Your task to perform on an android device: Go to Wikipedia Image 0: 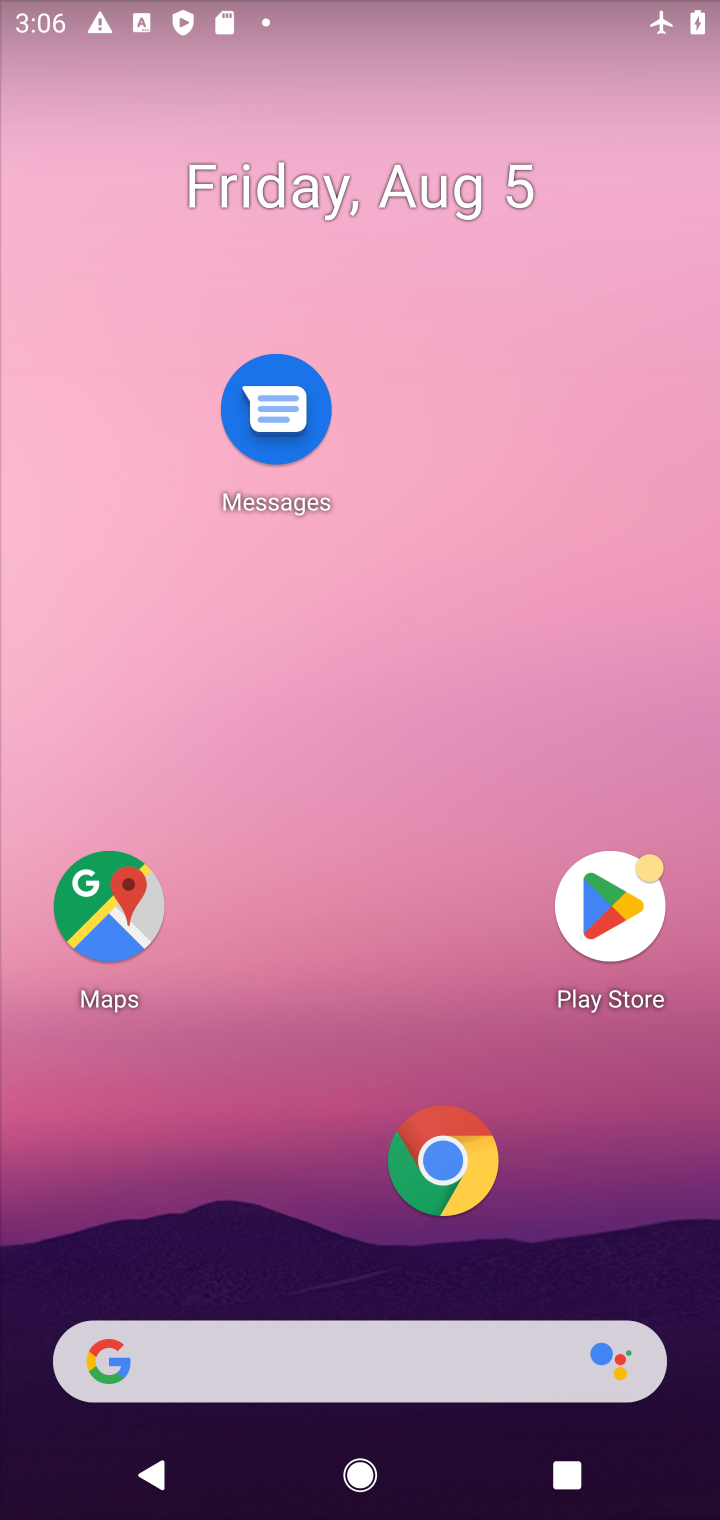
Step 0: click (453, 1169)
Your task to perform on an android device: Go to Wikipedia Image 1: 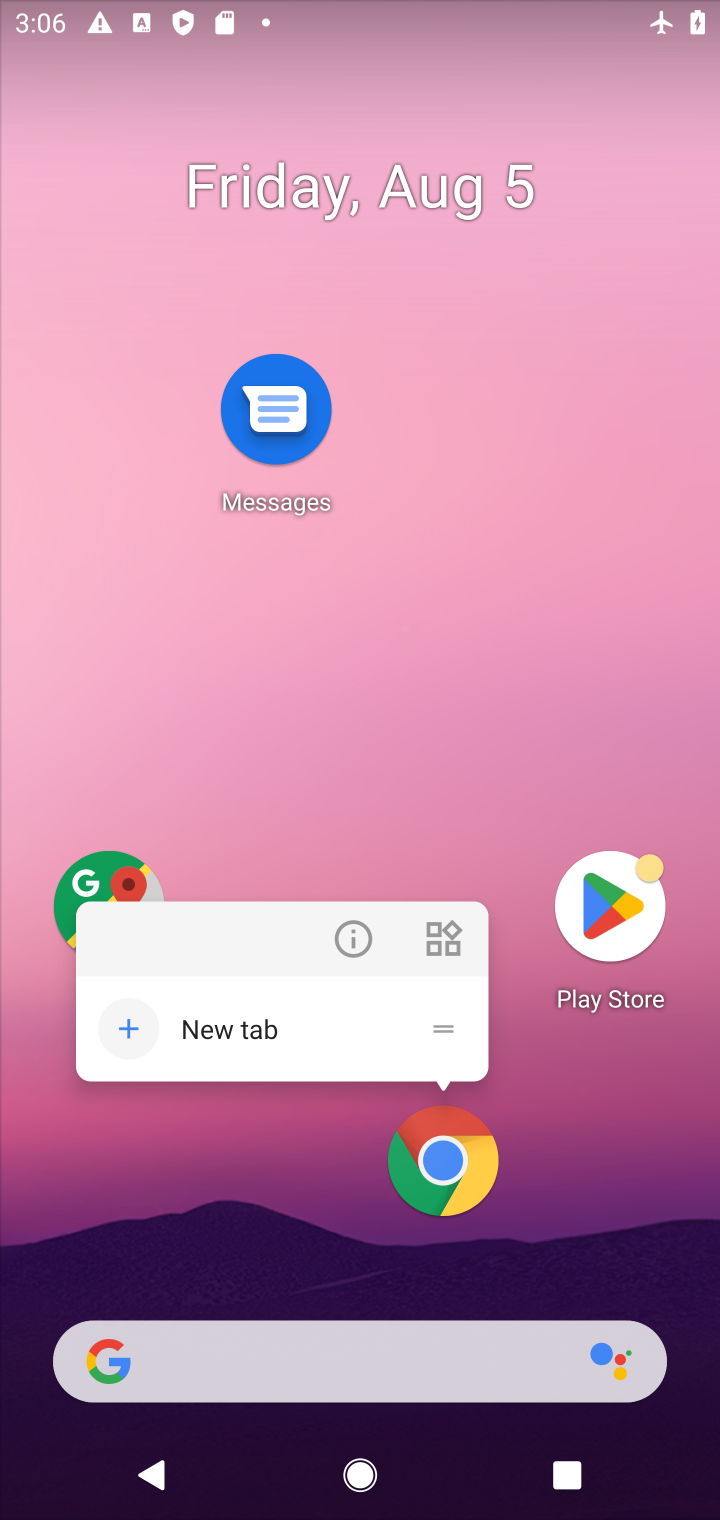
Step 1: click (453, 1169)
Your task to perform on an android device: Go to Wikipedia Image 2: 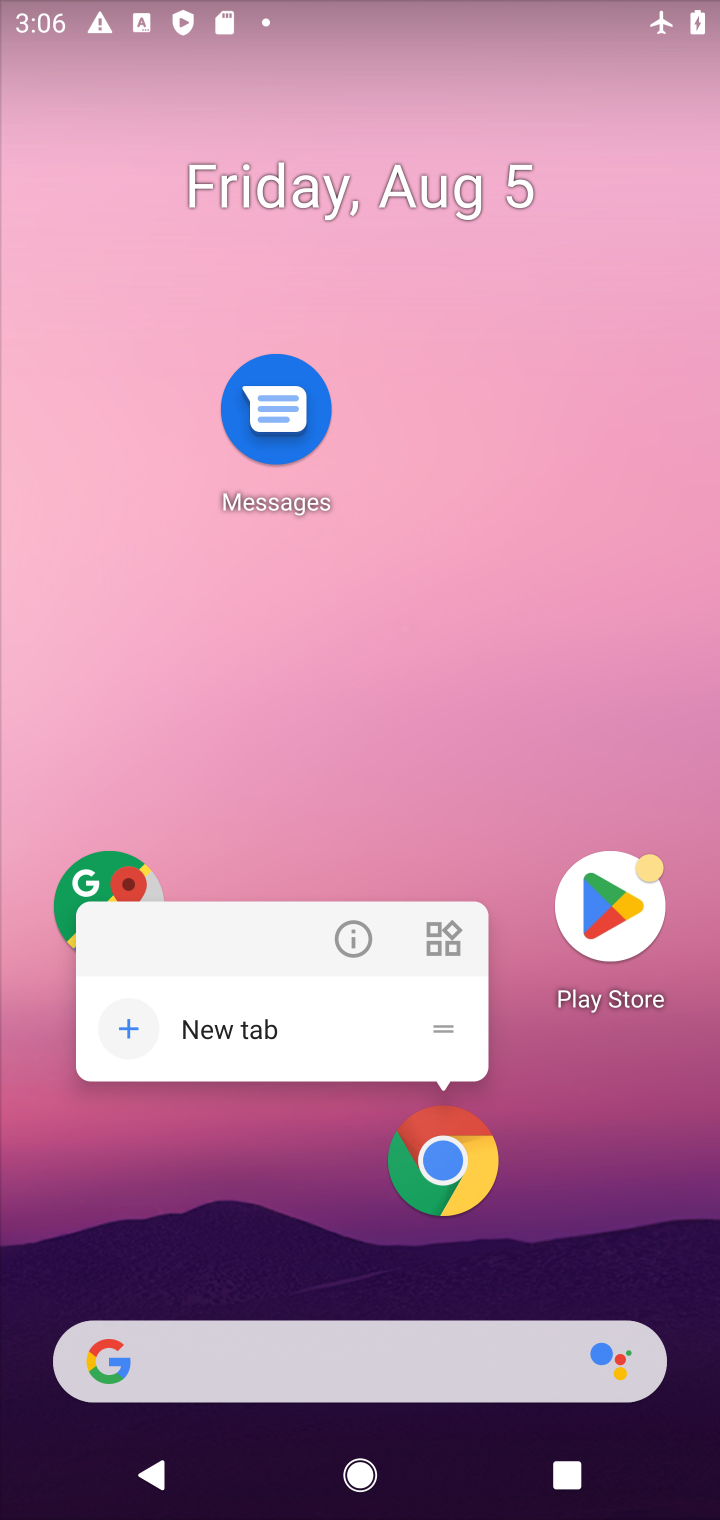
Step 2: click (453, 1169)
Your task to perform on an android device: Go to Wikipedia Image 3: 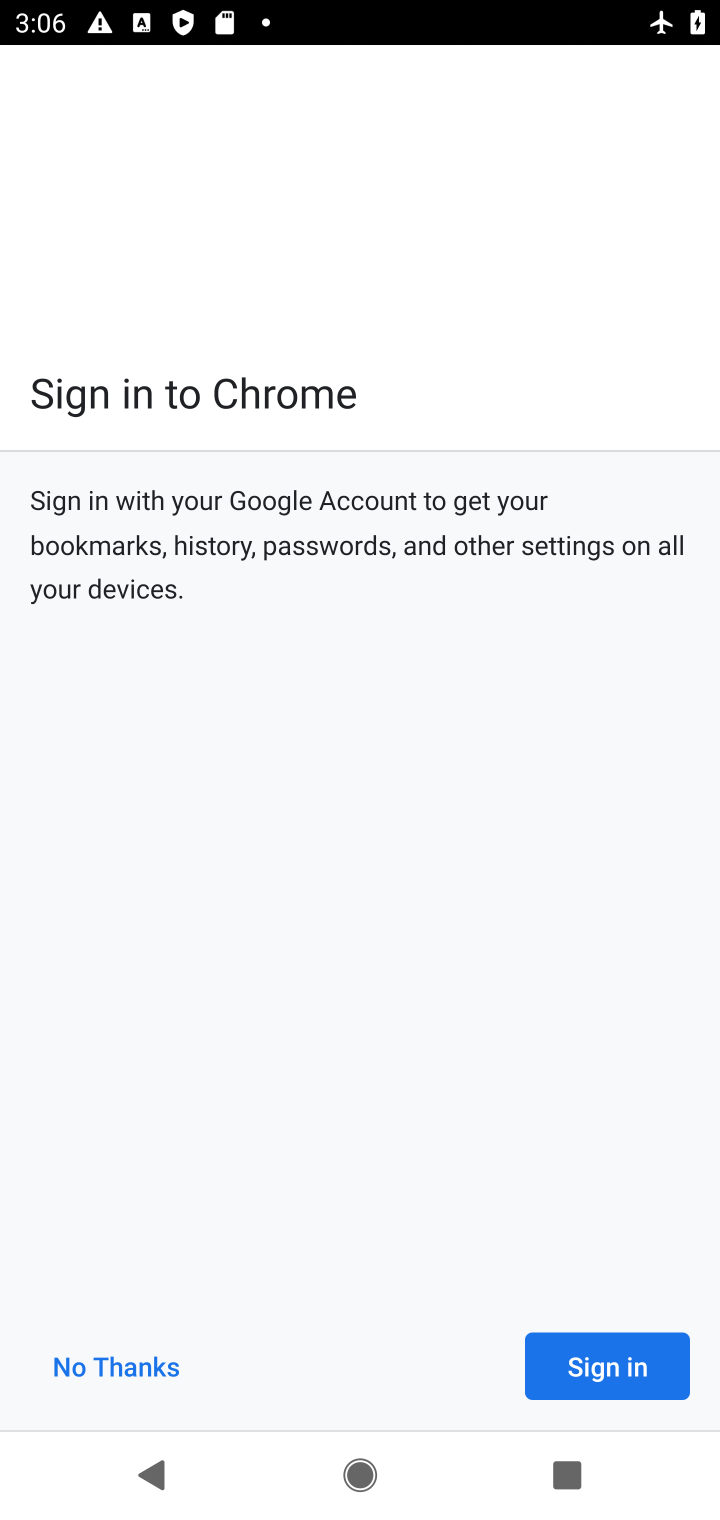
Step 3: click (592, 1385)
Your task to perform on an android device: Go to Wikipedia Image 4: 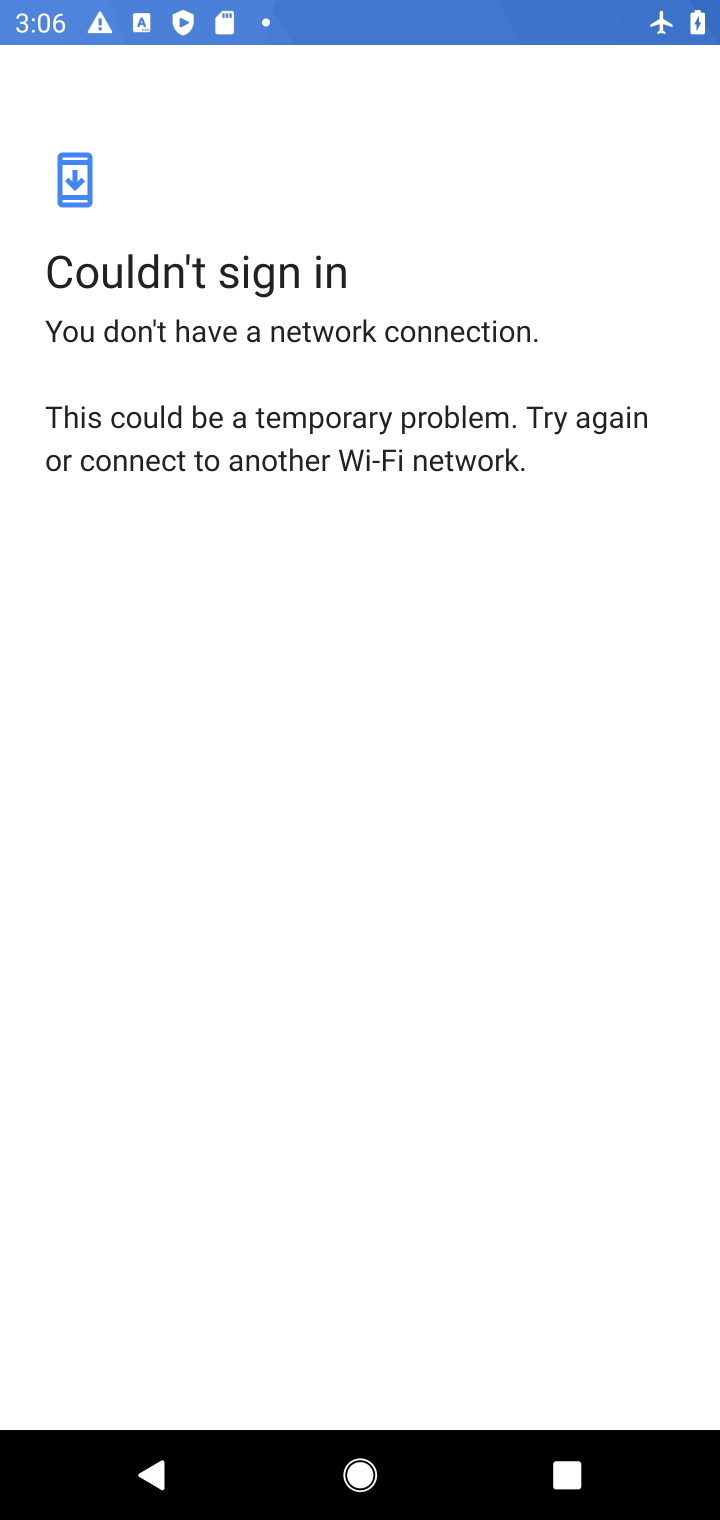
Step 4: task complete